Your task to perform on an android device: Clear the cart on bestbuy.com. Search for "amazon basics triple a" on bestbuy.com, select the first entry, and add it to the cart. Image 0: 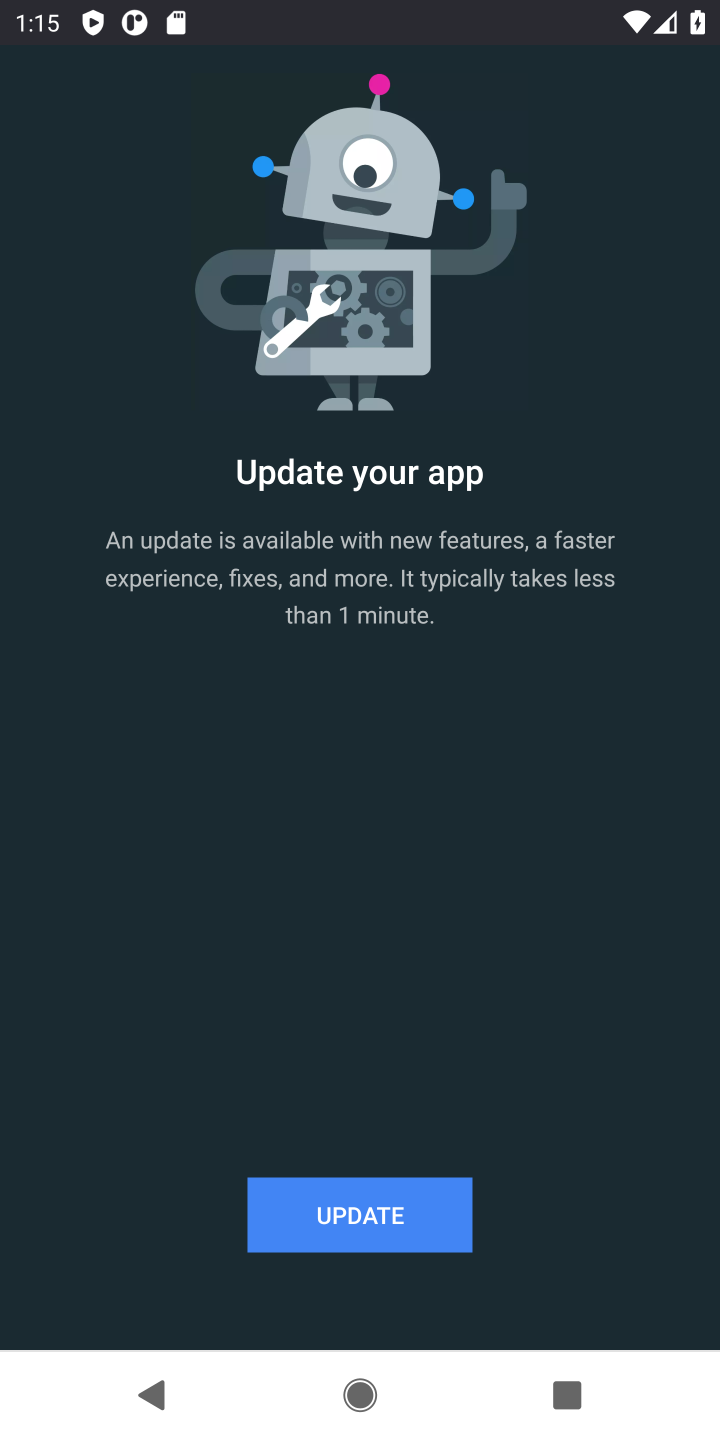
Step 0: press home button
Your task to perform on an android device: Clear the cart on bestbuy.com. Search for "amazon basics triple a" on bestbuy.com, select the first entry, and add it to the cart. Image 1: 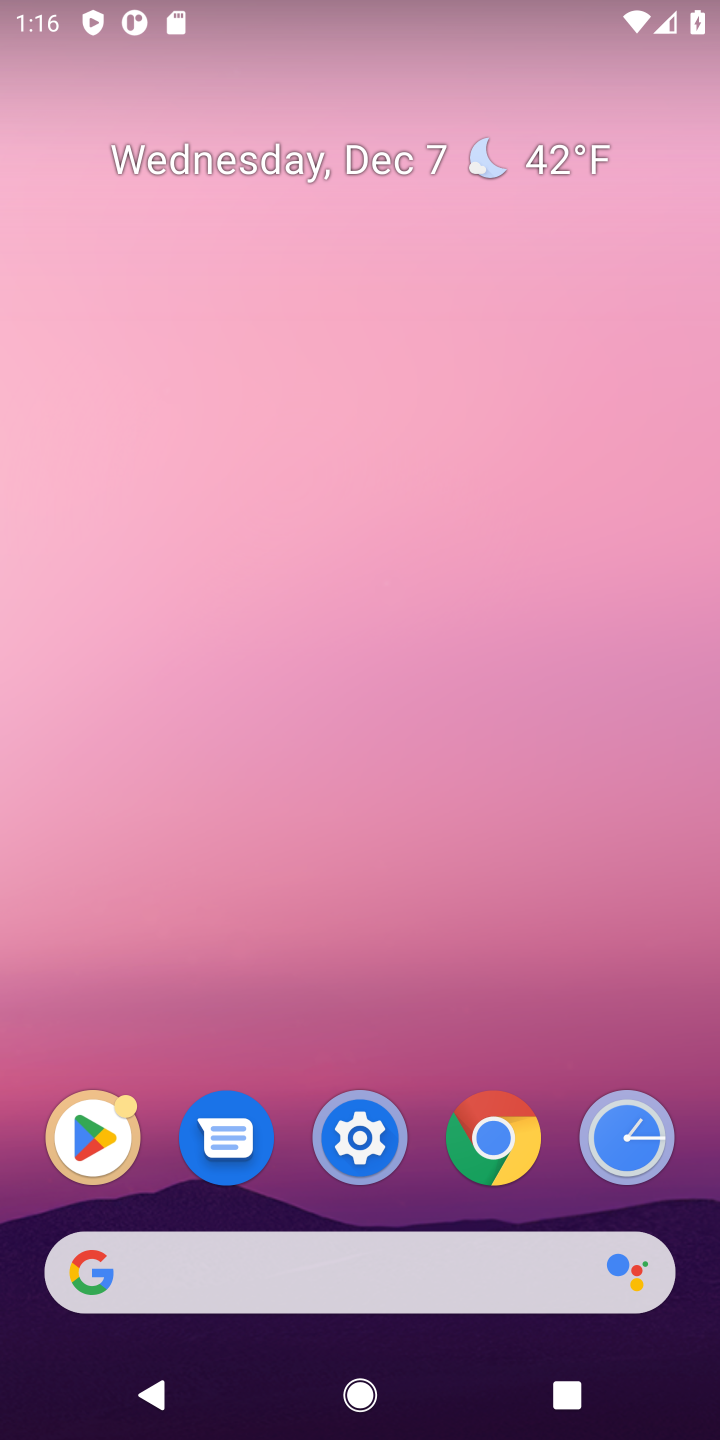
Step 1: click (410, 1304)
Your task to perform on an android device: Clear the cart on bestbuy.com. Search for "amazon basics triple a" on bestbuy.com, select the first entry, and add it to the cart. Image 2: 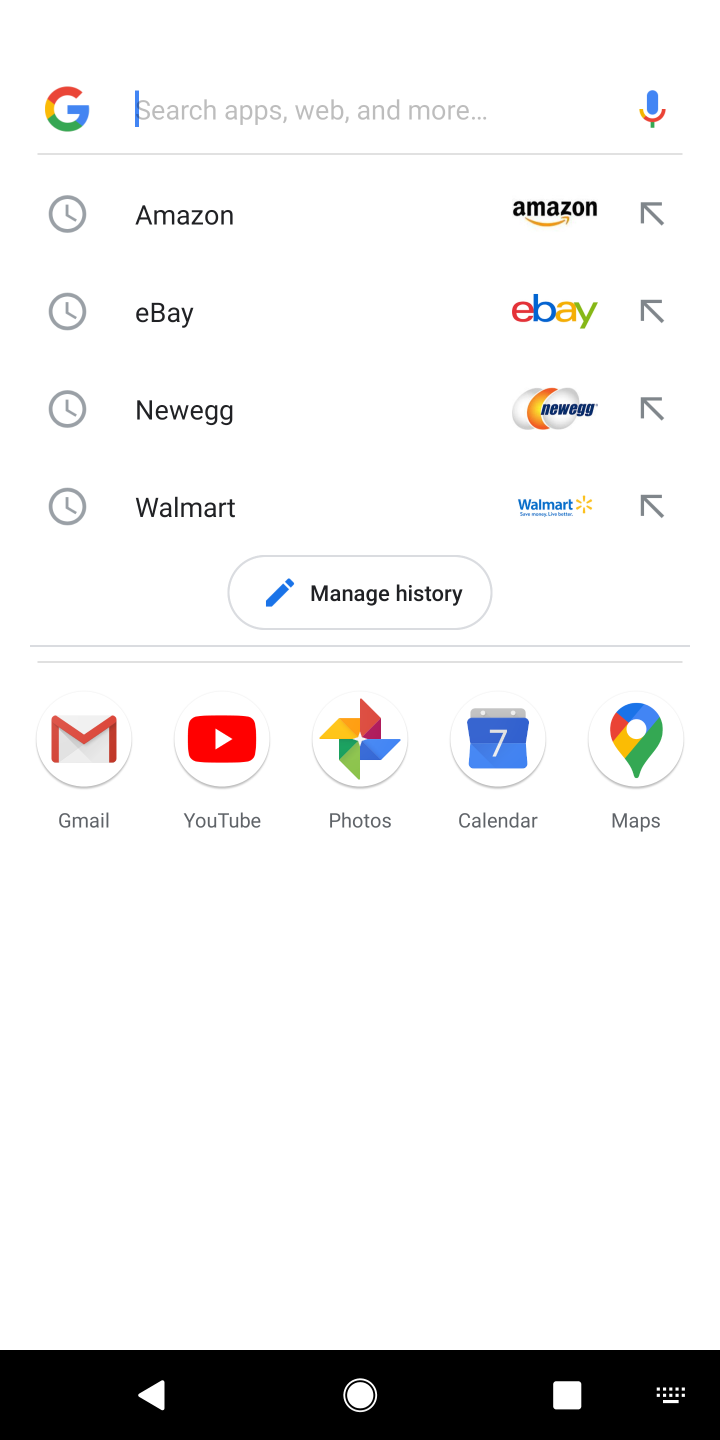
Step 2: type "bestbuy"
Your task to perform on an android device: Clear the cart on bestbuy.com. Search for "amazon basics triple a" on bestbuy.com, select the first entry, and add it to the cart. Image 3: 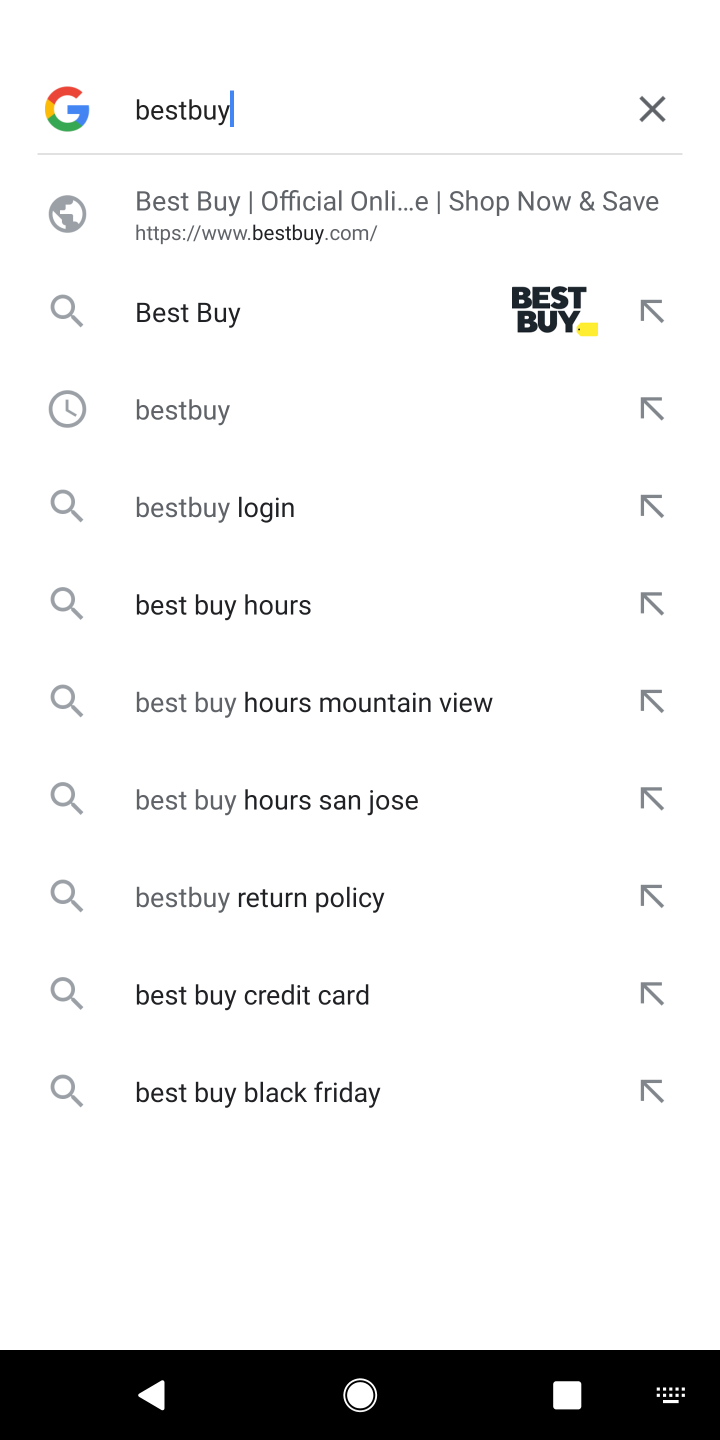
Step 3: click (227, 228)
Your task to perform on an android device: Clear the cart on bestbuy.com. Search for "amazon basics triple a" on bestbuy.com, select the first entry, and add it to the cart. Image 4: 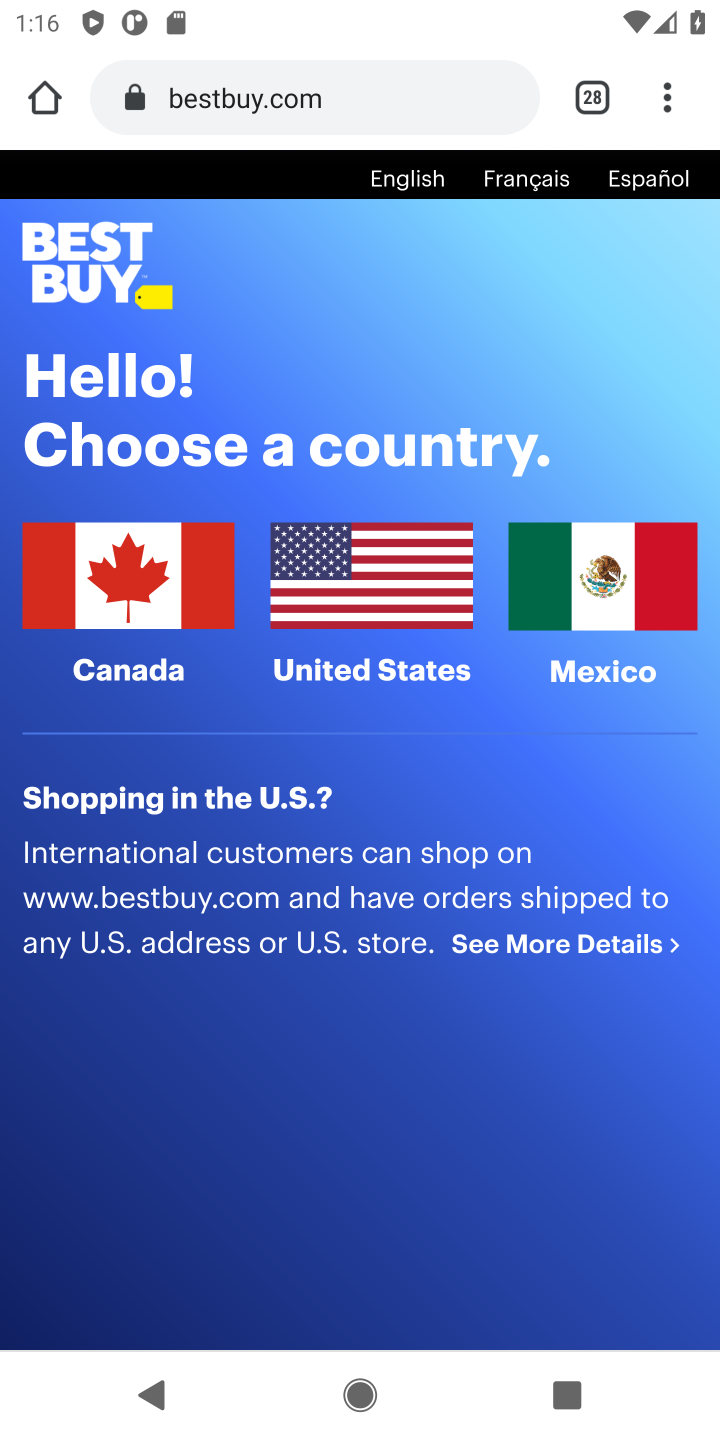
Step 4: click (100, 577)
Your task to perform on an android device: Clear the cart on bestbuy.com. Search for "amazon basics triple a" on bestbuy.com, select the first entry, and add it to the cart. Image 5: 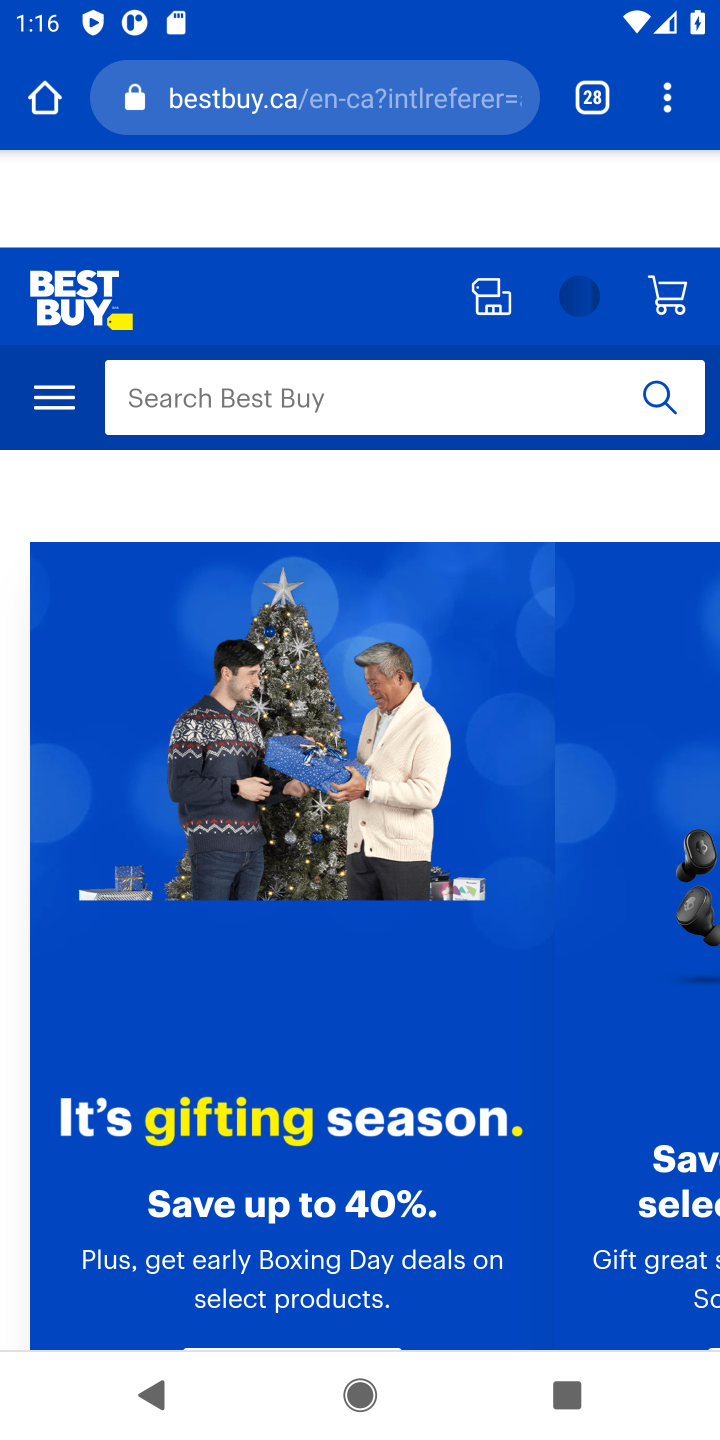
Step 5: click (380, 414)
Your task to perform on an android device: Clear the cart on bestbuy.com. Search for "amazon basics triple a" on bestbuy.com, select the first entry, and add it to the cart. Image 6: 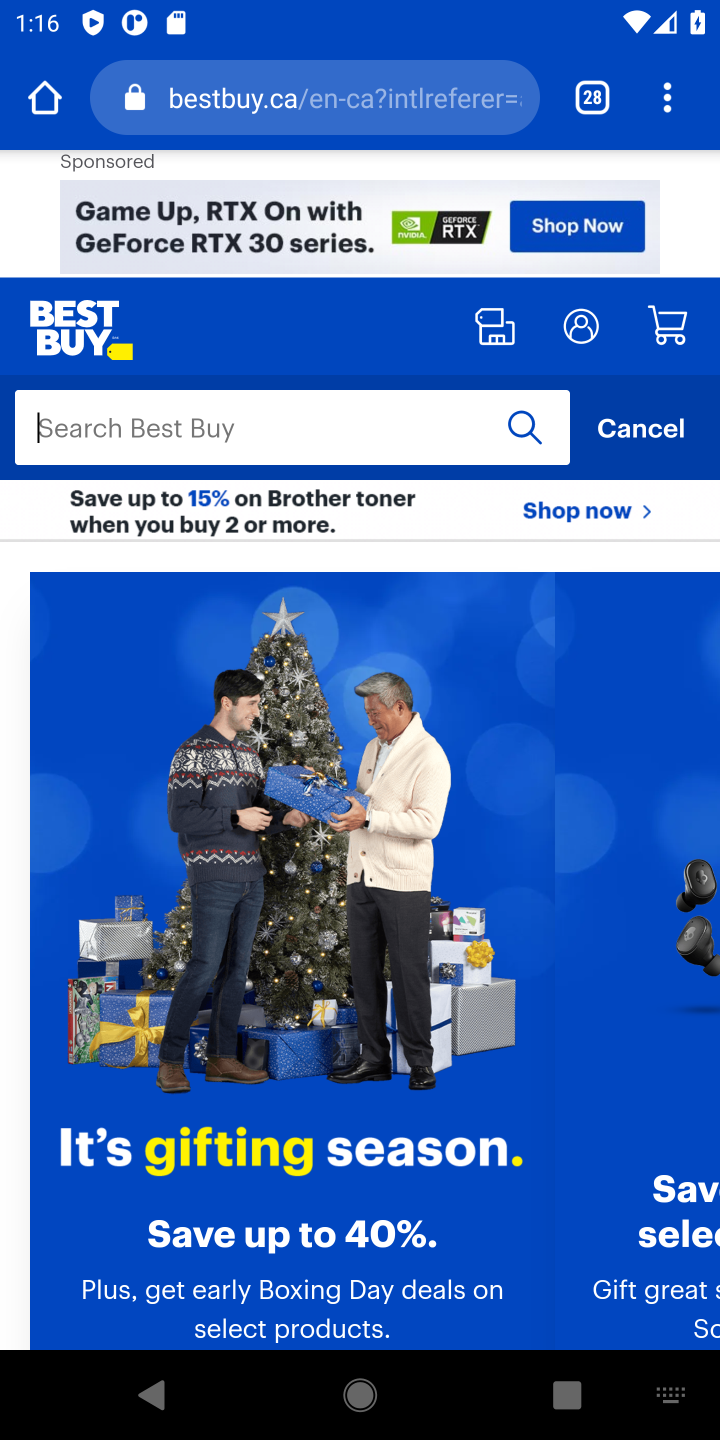
Step 6: type "basic triple"
Your task to perform on an android device: Clear the cart on bestbuy.com. Search for "amazon basics triple a" on bestbuy.com, select the first entry, and add it to the cart. Image 7: 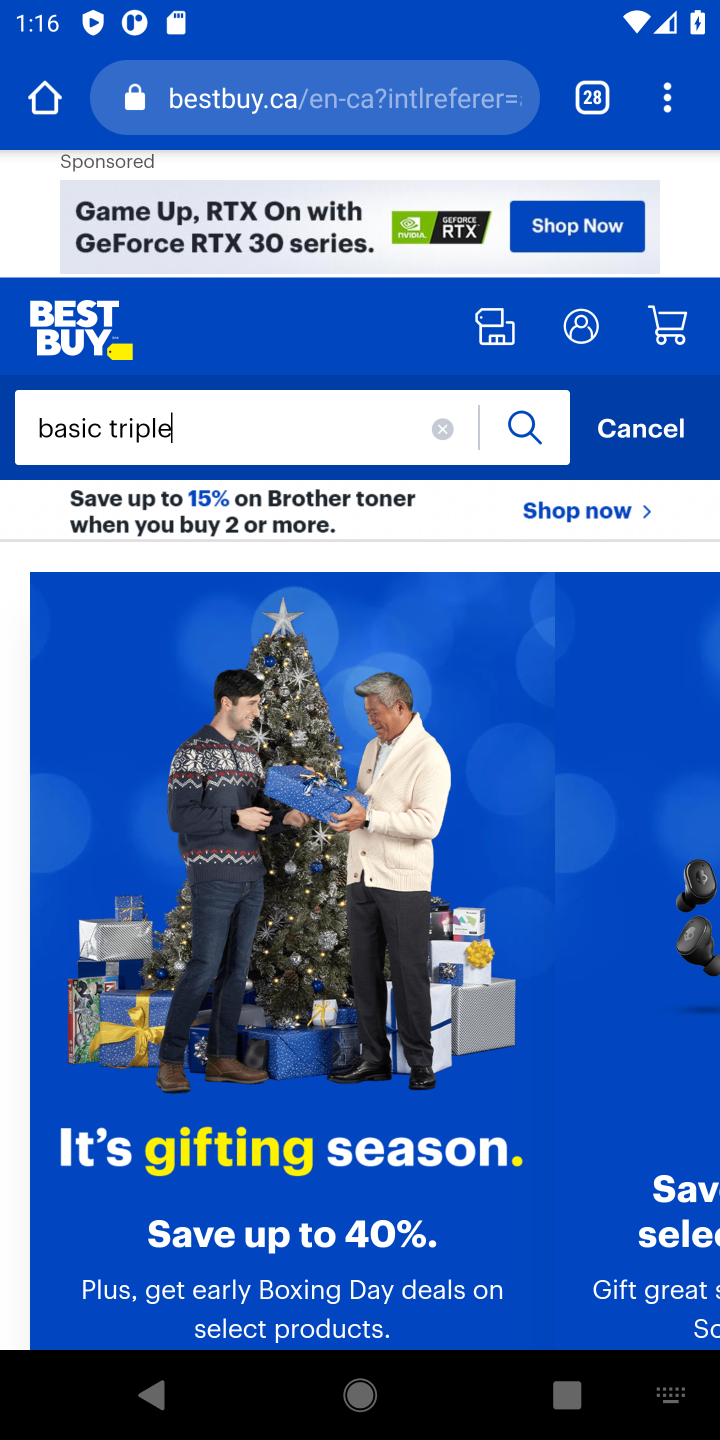
Step 7: click (513, 447)
Your task to perform on an android device: Clear the cart on bestbuy.com. Search for "amazon basics triple a" on bestbuy.com, select the first entry, and add it to the cart. Image 8: 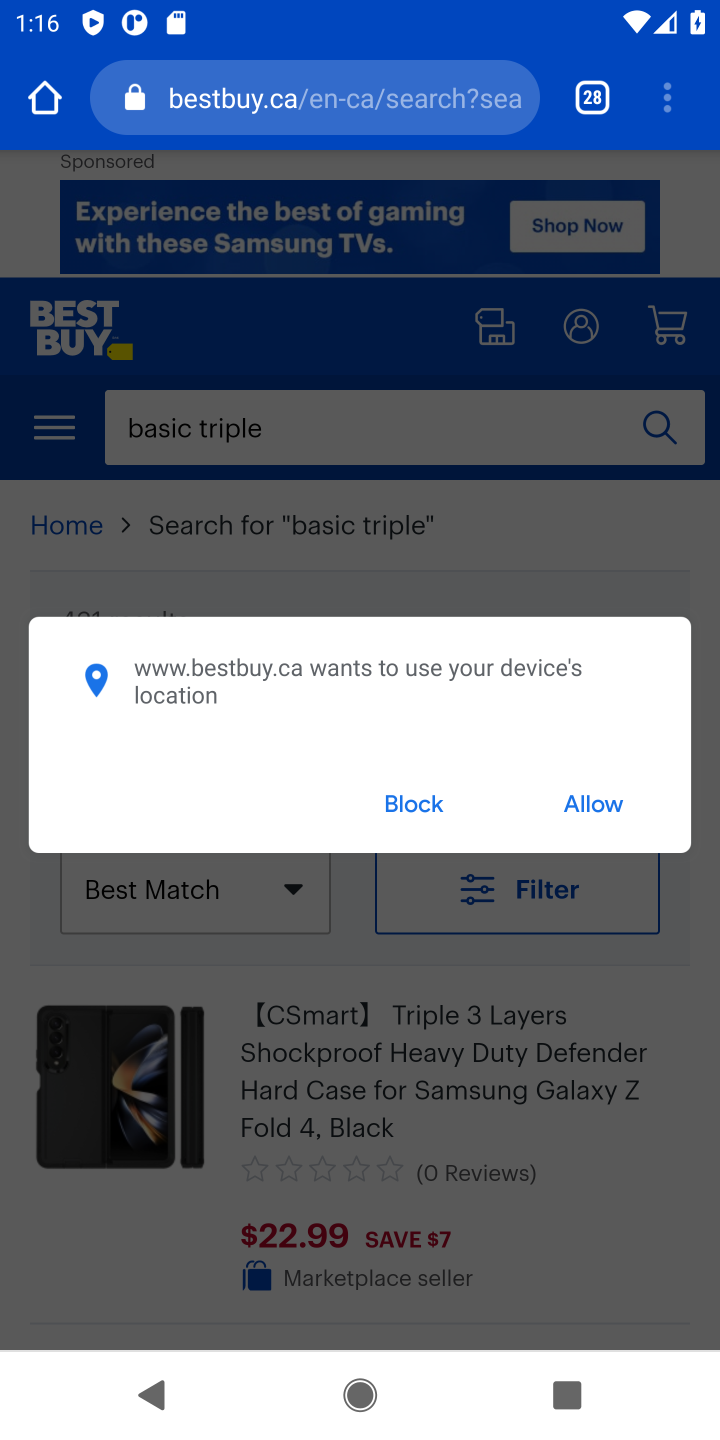
Step 8: click (391, 796)
Your task to perform on an android device: Clear the cart on bestbuy.com. Search for "amazon basics triple a" on bestbuy.com, select the first entry, and add it to the cart. Image 9: 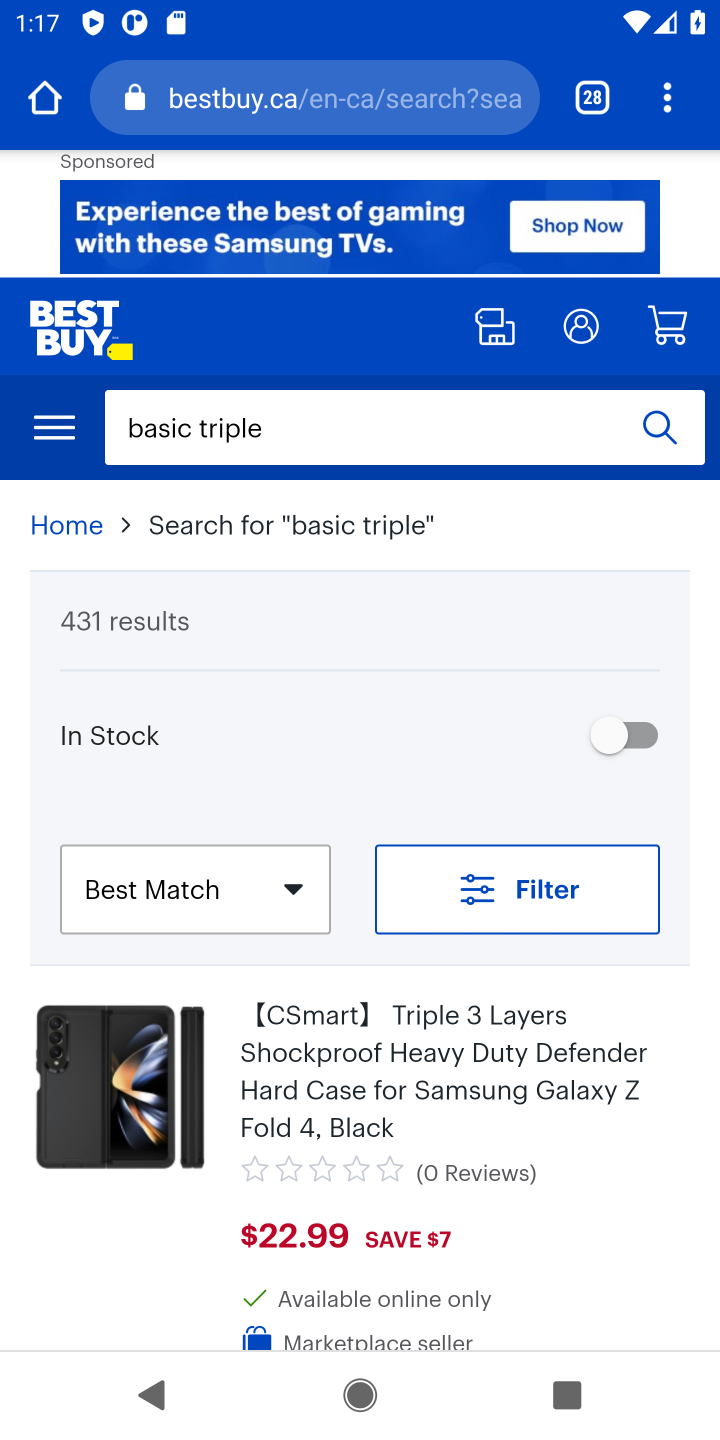
Step 9: click (269, 458)
Your task to perform on an android device: Clear the cart on bestbuy.com. Search for "amazon basics triple a" on bestbuy.com, select the first entry, and add it to the cart. Image 10: 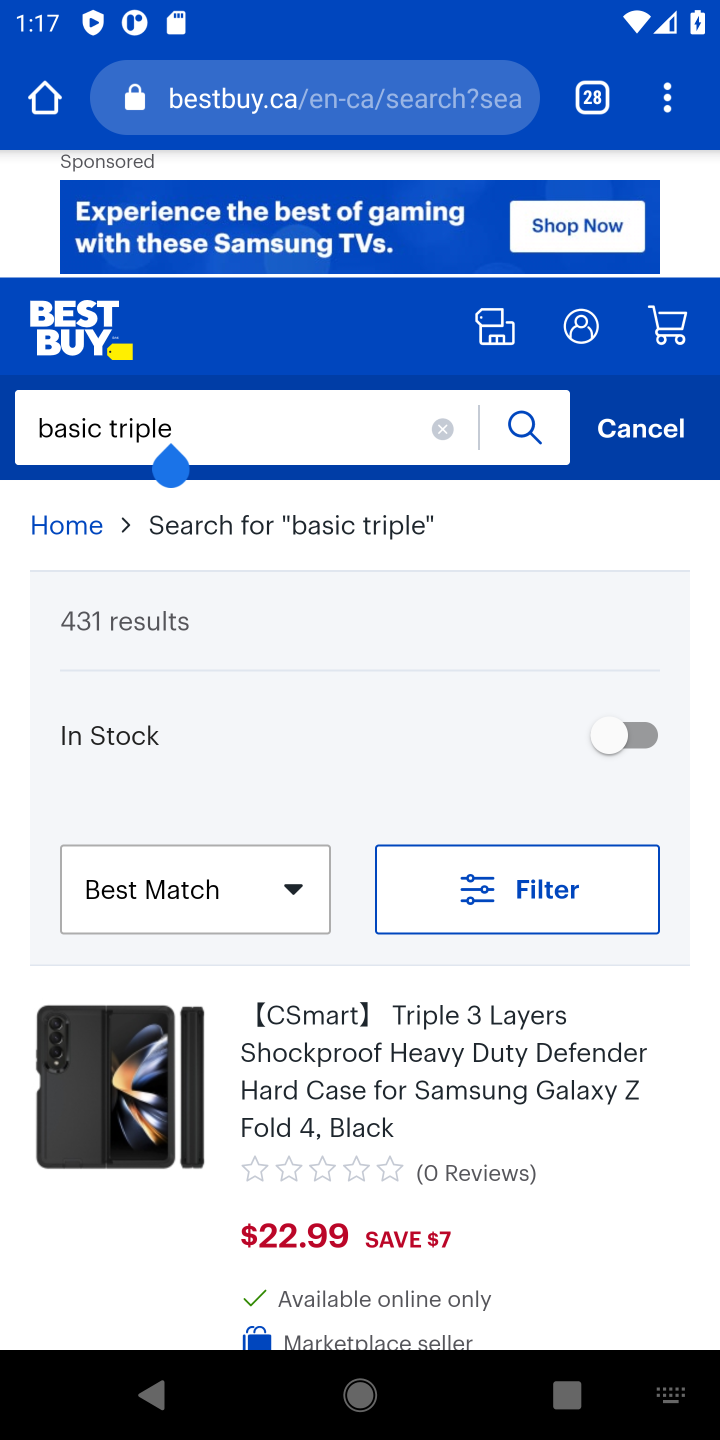
Step 10: task complete